Your task to perform on an android device: see tabs open on other devices in the chrome app Image 0: 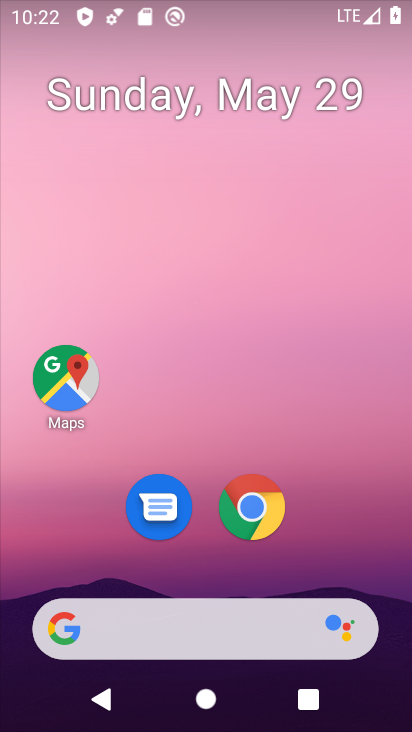
Step 0: click (243, 519)
Your task to perform on an android device: see tabs open on other devices in the chrome app Image 1: 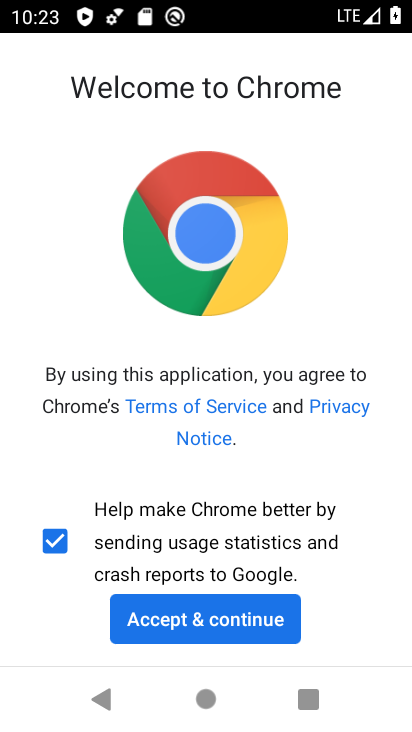
Step 1: click (225, 610)
Your task to perform on an android device: see tabs open on other devices in the chrome app Image 2: 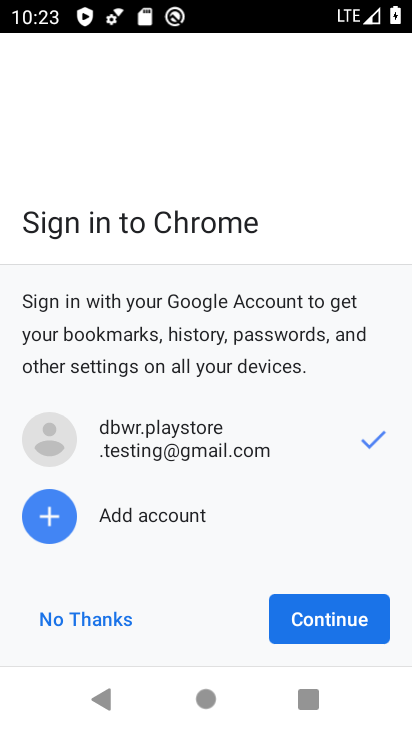
Step 2: click (362, 625)
Your task to perform on an android device: see tabs open on other devices in the chrome app Image 3: 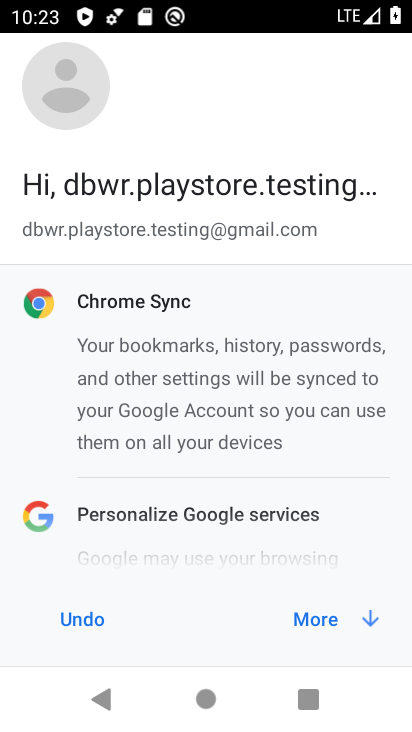
Step 3: click (340, 629)
Your task to perform on an android device: see tabs open on other devices in the chrome app Image 4: 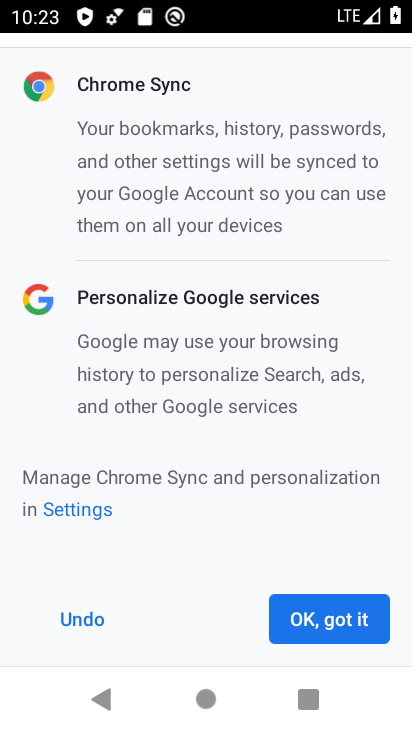
Step 4: click (365, 613)
Your task to perform on an android device: see tabs open on other devices in the chrome app Image 5: 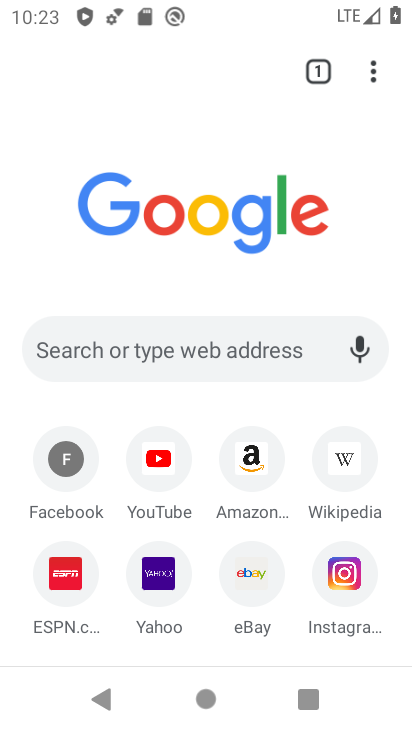
Step 5: task complete